Your task to perform on an android device: toggle pop-ups in chrome Image 0: 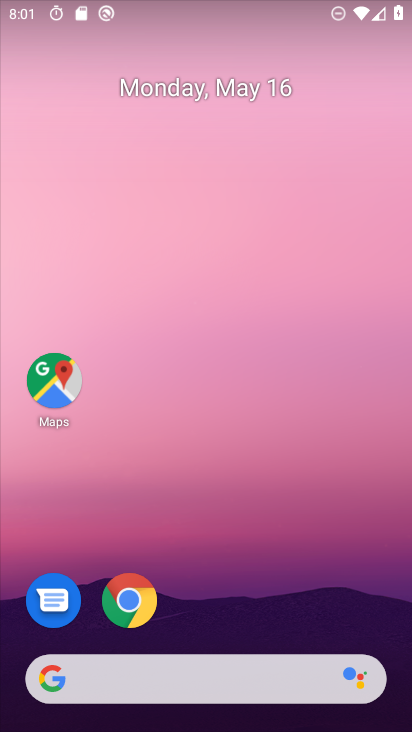
Step 0: click (139, 608)
Your task to perform on an android device: toggle pop-ups in chrome Image 1: 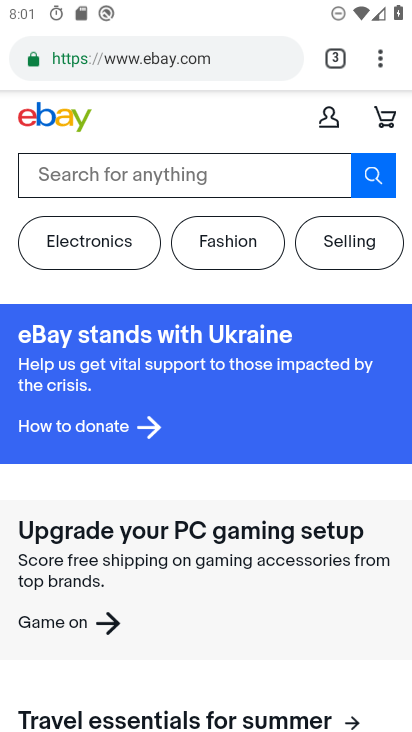
Step 1: click (383, 58)
Your task to perform on an android device: toggle pop-ups in chrome Image 2: 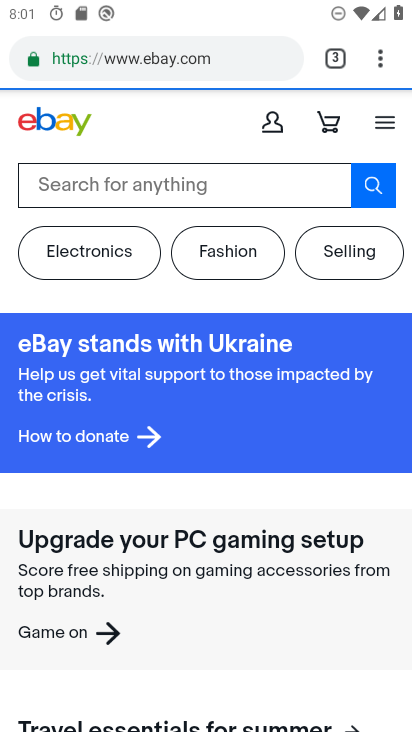
Step 2: drag from (383, 58) to (223, 619)
Your task to perform on an android device: toggle pop-ups in chrome Image 3: 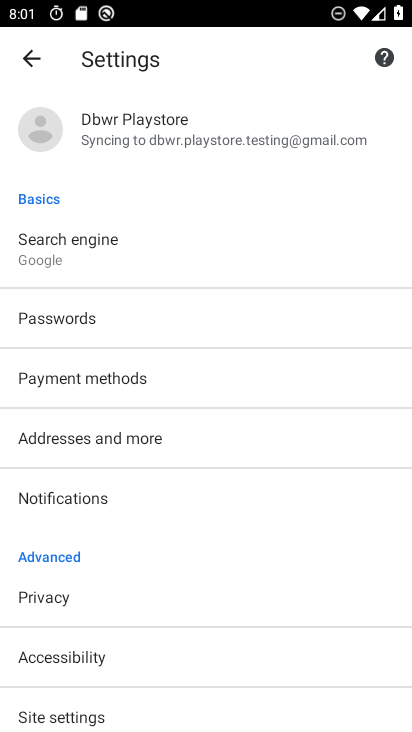
Step 3: click (79, 703)
Your task to perform on an android device: toggle pop-ups in chrome Image 4: 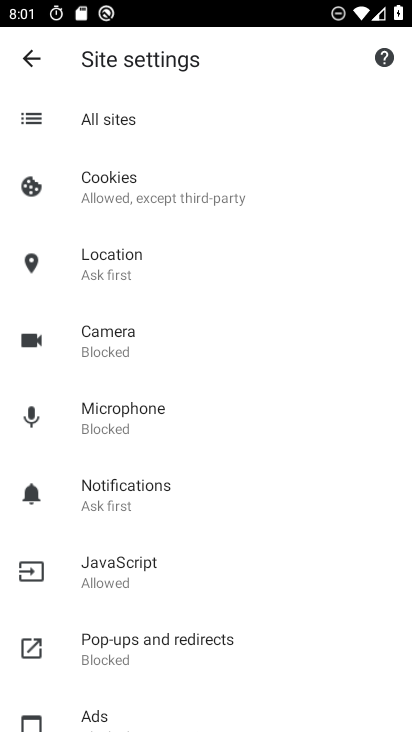
Step 4: click (170, 646)
Your task to perform on an android device: toggle pop-ups in chrome Image 5: 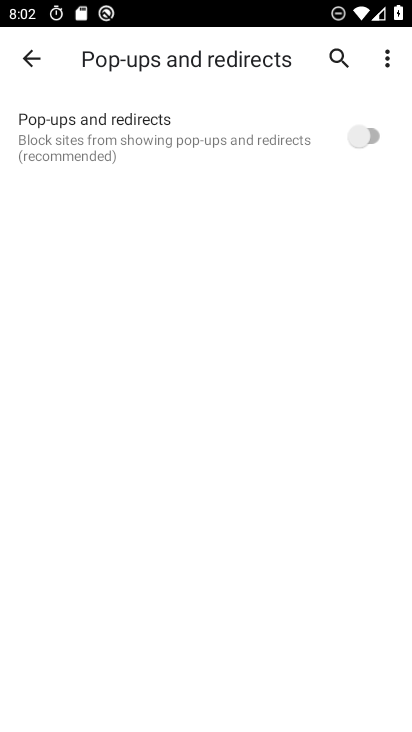
Step 5: task complete